Your task to perform on an android device: Open Android settings Image 0: 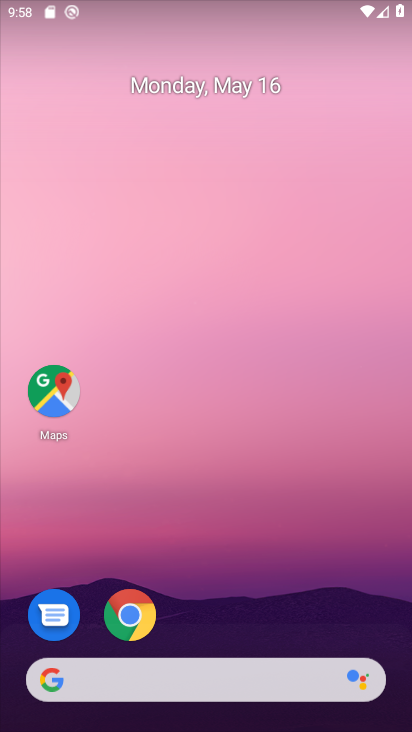
Step 0: drag from (248, 617) to (297, 101)
Your task to perform on an android device: Open Android settings Image 1: 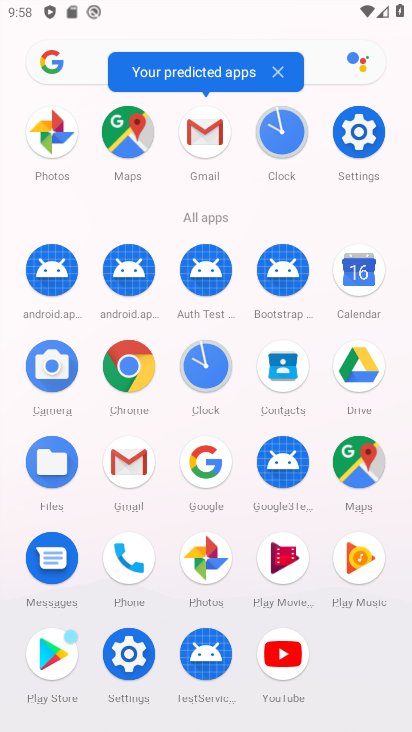
Step 1: click (354, 129)
Your task to perform on an android device: Open Android settings Image 2: 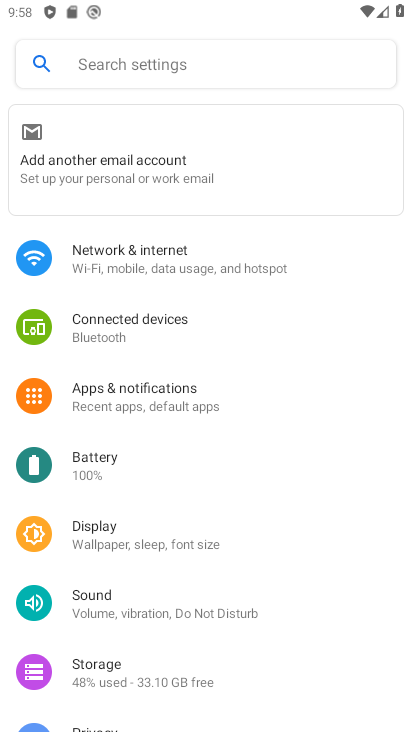
Step 2: drag from (157, 648) to (276, 100)
Your task to perform on an android device: Open Android settings Image 3: 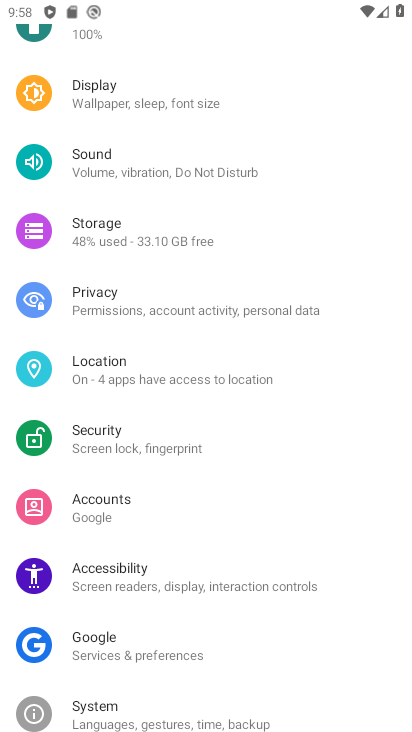
Step 3: drag from (172, 633) to (307, 0)
Your task to perform on an android device: Open Android settings Image 4: 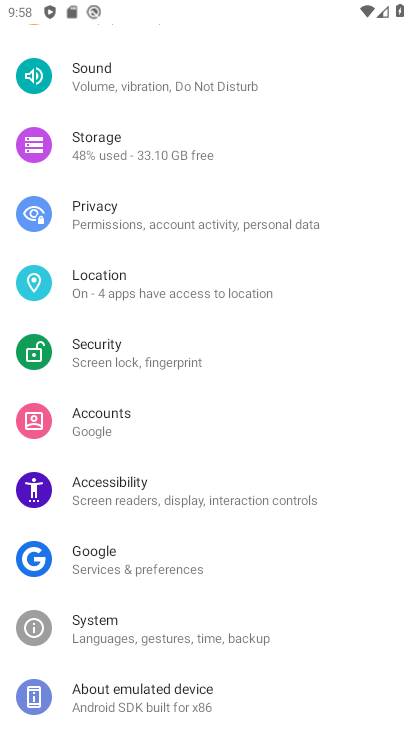
Step 4: click (105, 696)
Your task to perform on an android device: Open Android settings Image 5: 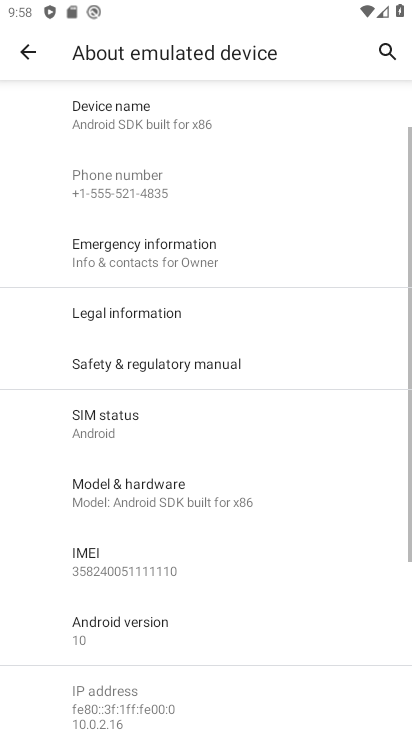
Step 5: click (108, 630)
Your task to perform on an android device: Open Android settings Image 6: 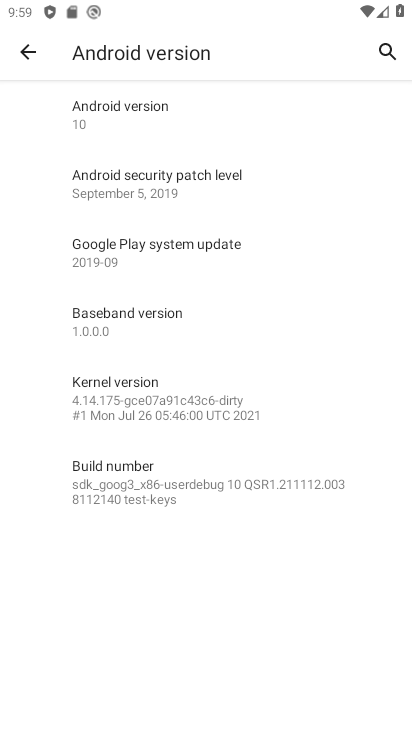
Step 6: task complete